Your task to perform on an android device: Go to internet settings Image 0: 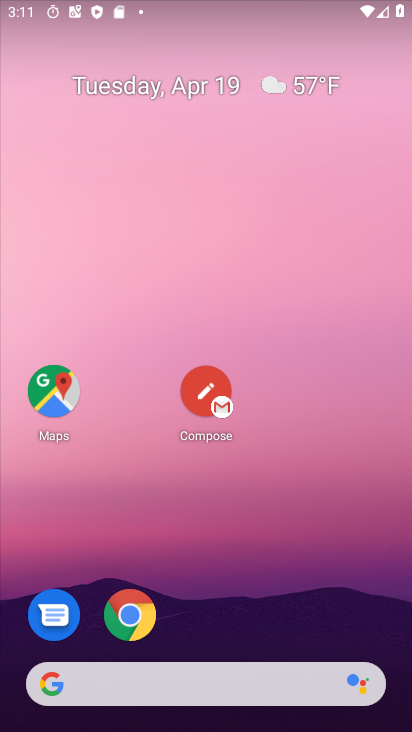
Step 0: drag from (290, 557) to (309, 45)
Your task to perform on an android device: Go to internet settings Image 1: 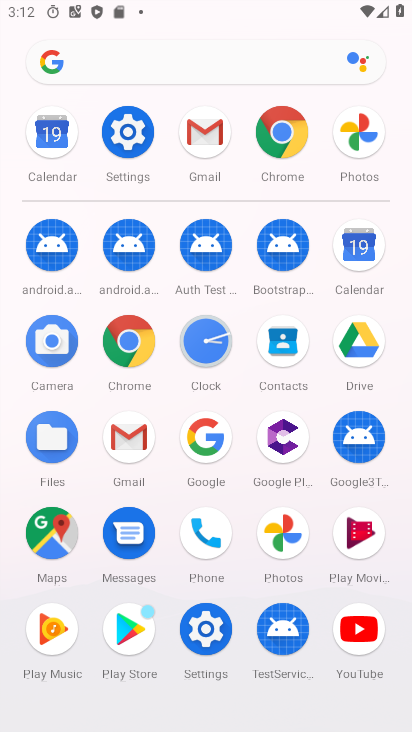
Step 1: click (202, 630)
Your task to perform on an android device: Go to internet settings Image 2: 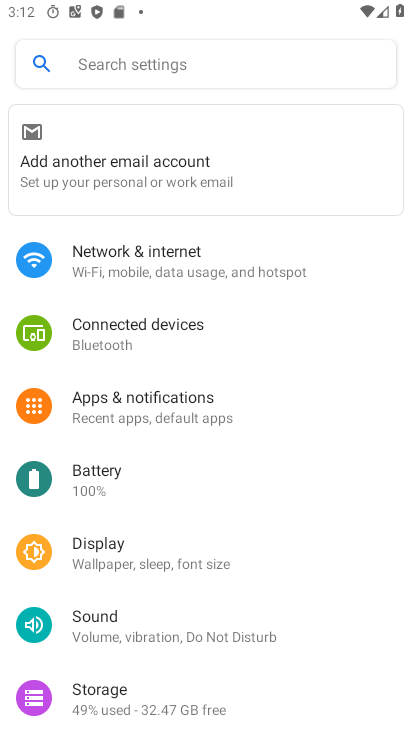
Step 2: click (241, 263)
Your task to perform on an android device: Go to internet settings Image 3: 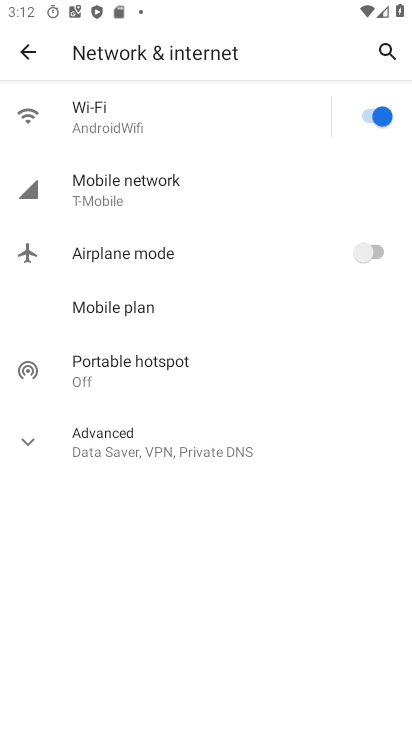
Step 3: click (180, 186)
Your task to perform on an android device: Go to internet settings Image 4: 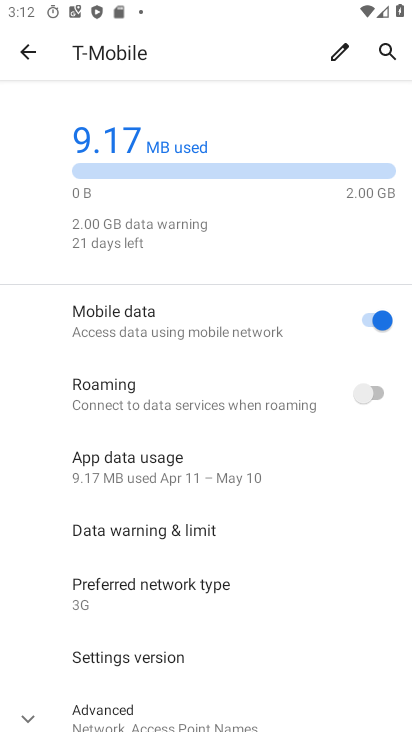
Step 4: task complete